Your task to perform on an android device: toggle javascript in the chrome app Image 0: 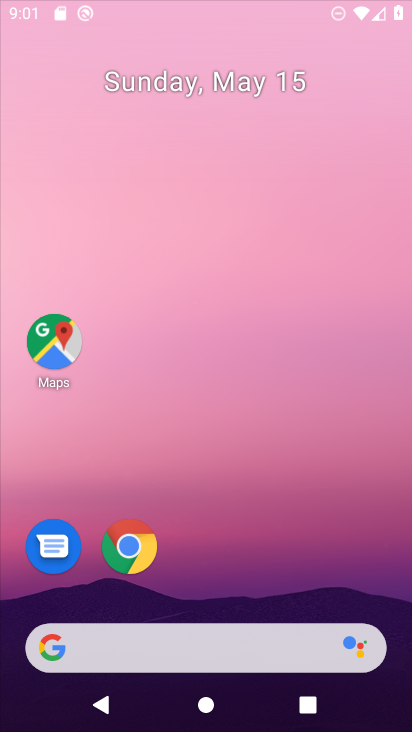
Step 0: drag from (214, 288) to (187, 46)
Your task to perform on an android device: toggle javascript in the chrome app Image 1: 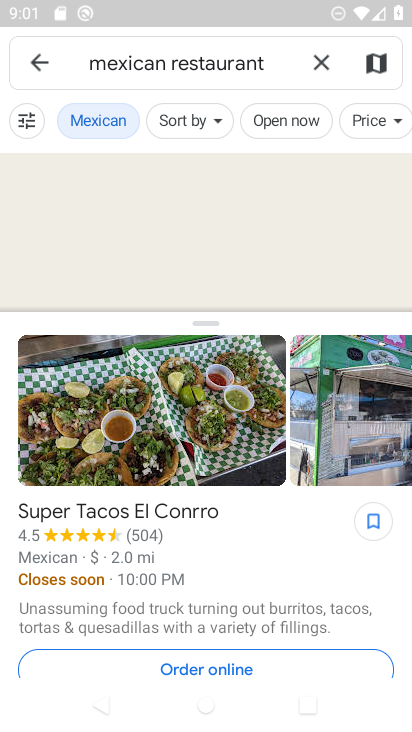
Step 1: press home button
Your task to perform on an android device: toggle javascript in the chrome app Image 2: 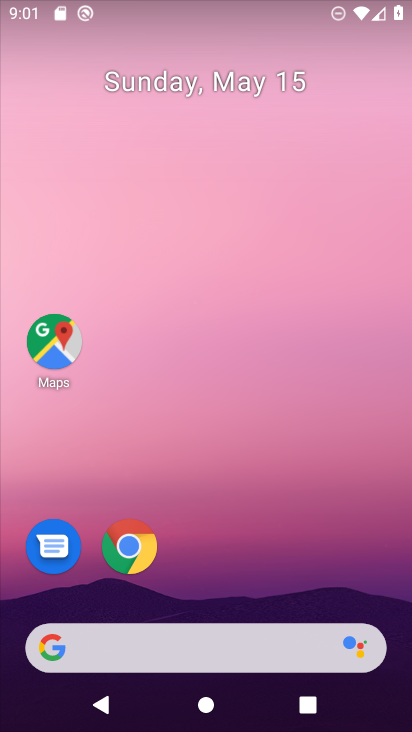
Step 2: click (132, 545)
Your task to perform on an android device: toggle javascript in the chrome app Image 3: 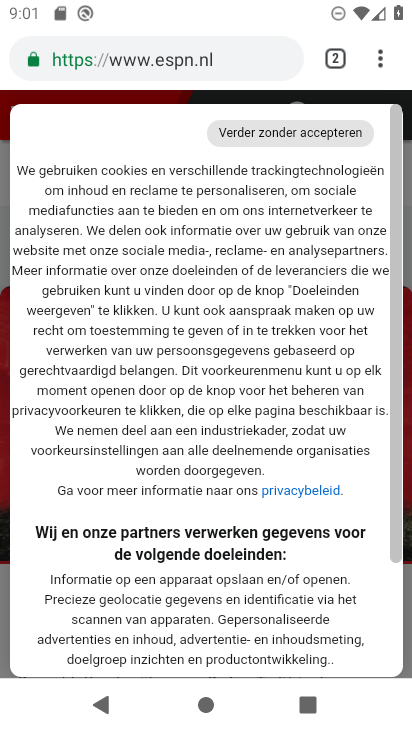
Step 3: click (380, 61)
Your task to perform on an android device: toggle javascript in the chrome app Image 4: 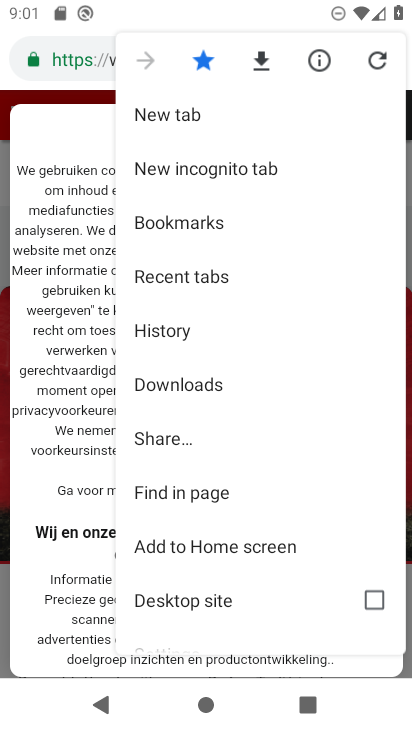
Step 4: drag from (242, 578) to (350, 245)
Your task to perform on an android device: toggle javascript in the chrome app Image 5: 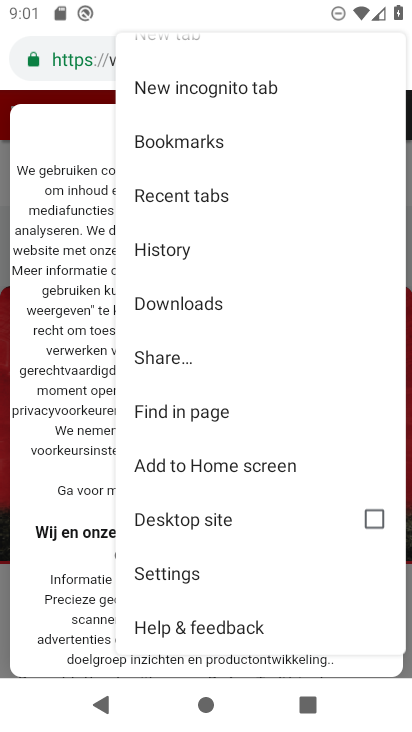
Step 5: click (184, 573)
Your task to perform on an android device: toggle javascript in the chrome app Image 6: 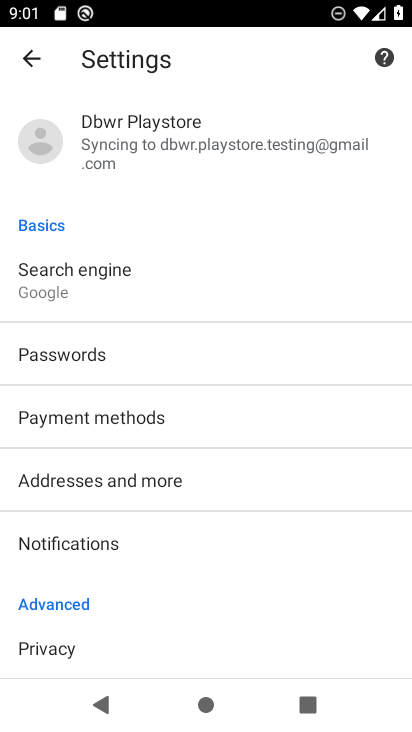
Step 6: drag from (243, 559) to (293, 250)
Your task to perform on an android device: toggle javascript in the chrome app Image 7: 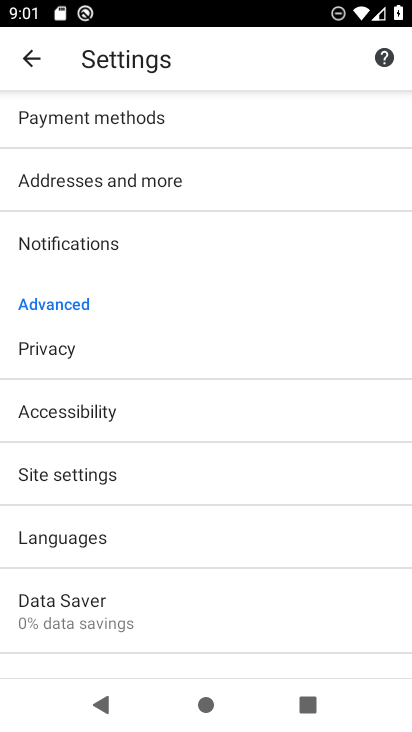
Step 7: click (213, 486)
Your task to perform on an android device: toggle javascript in the chrome app Image 8: 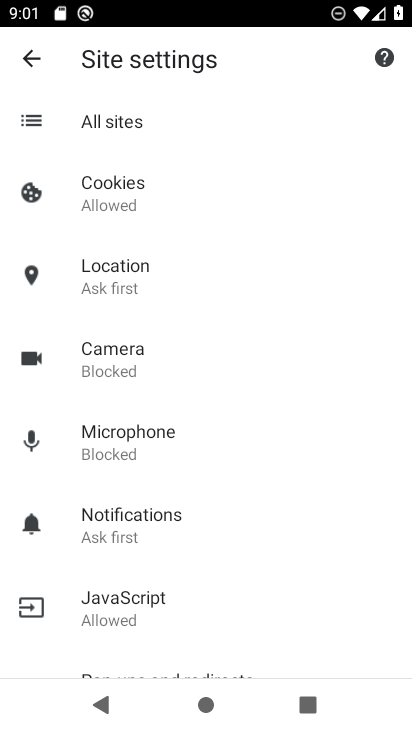
Step 8: click (173, 592)
Your task to perform on an android device: toggle javascript in the chrome app Image 9: 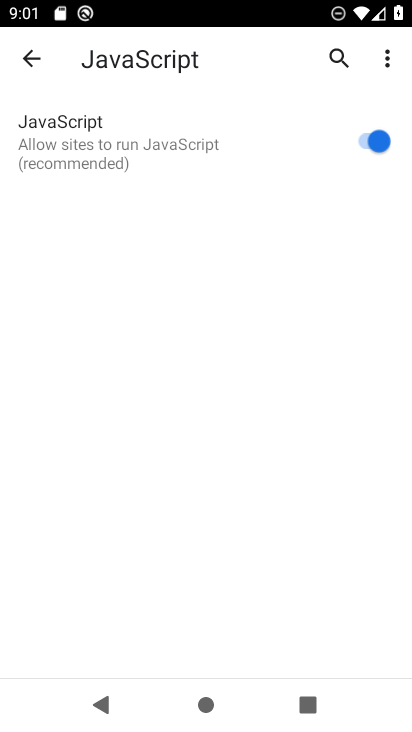
Step 9: click (369, 129)
Your task to perform on an android device: toggle javascript in the chrome app Image 10: 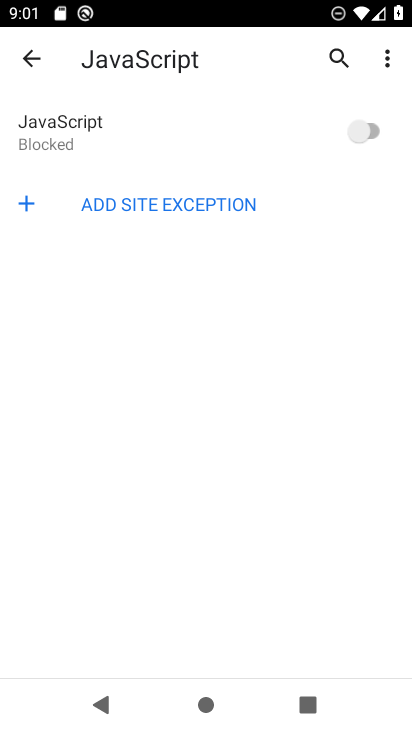
Step 10: task complete